Your task to perform on an android device: What's the weather going to be tomorrow? Image 0: 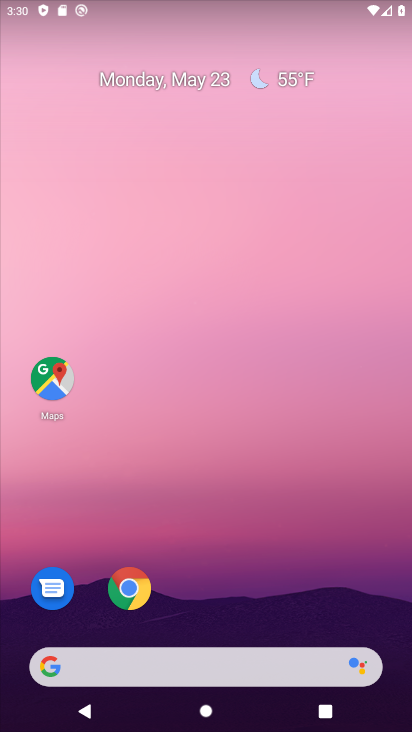
Step 0: drag from (189, 591) to (219, 88)
Your task to perform on an android device: What's the weather going to be tomorrow? Image 1: 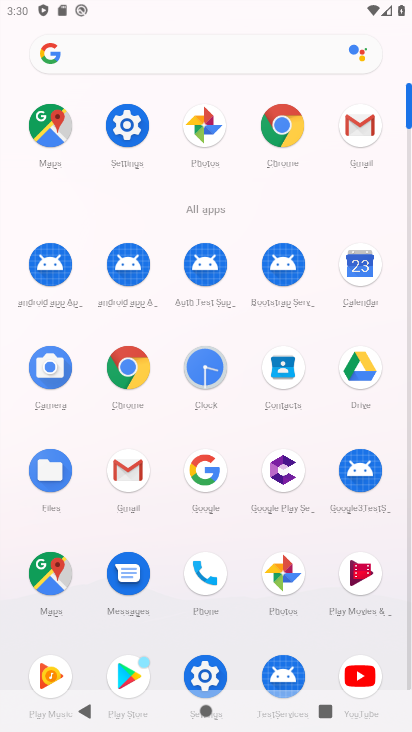
Step 1: click (204, 461)
Your task to perform on an android device: What's the weather going to be tomorrow? Image 2: 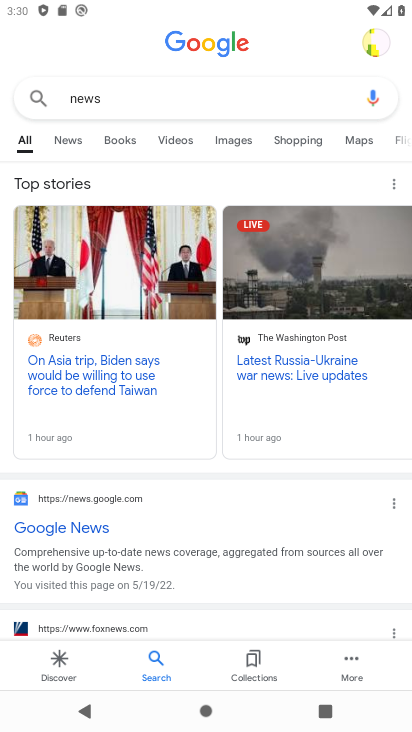
Step 2: click (173, 92)
Your task to perform on an android device: What's the weather going to be tomorrow? Image 3: 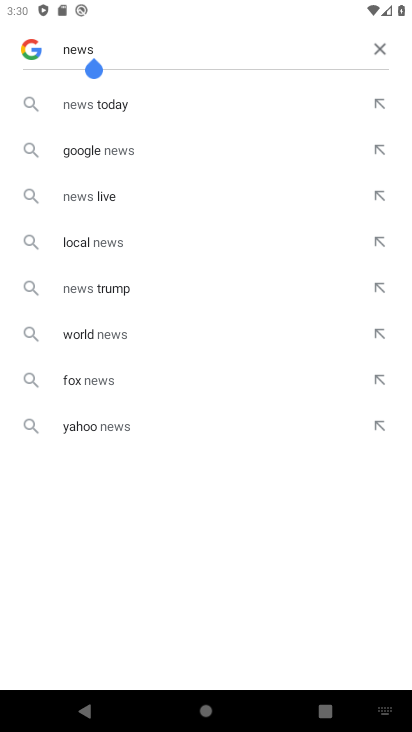
Step 3: click (378, 48)
Your task to perform on an android device: What's the weather going to be tomorrow? Image 4: 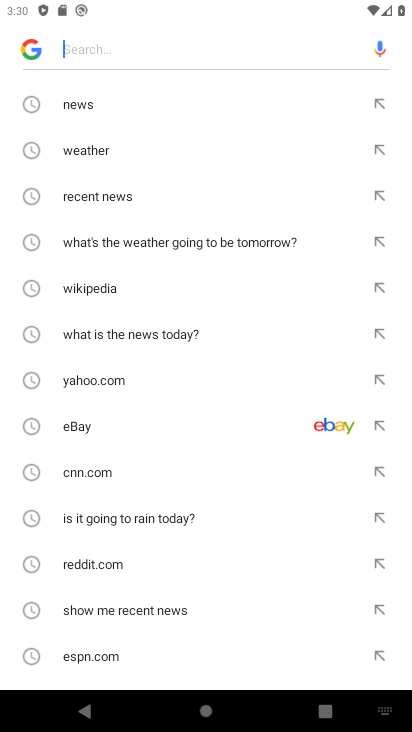
Step 4: click (189, 238)
Your task to perform on an android device: What's the weather going to be tomorrow? Image 5: 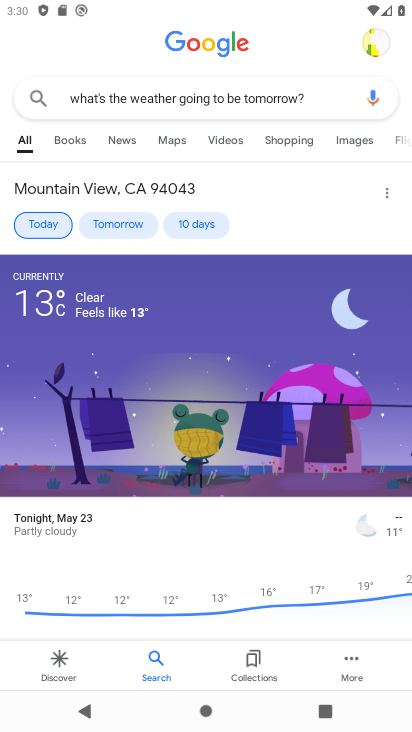
Step 5: task complete